Your task to perform on an android device: empty trash in the gmail app Image 0: 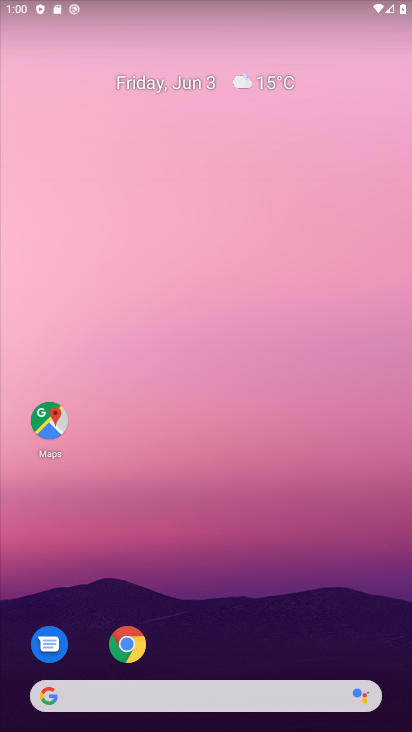
Step 0: drag from (203, 643) to (234, 249)
Your task to perform on an android device: empty trash in the gmail app Image 1: 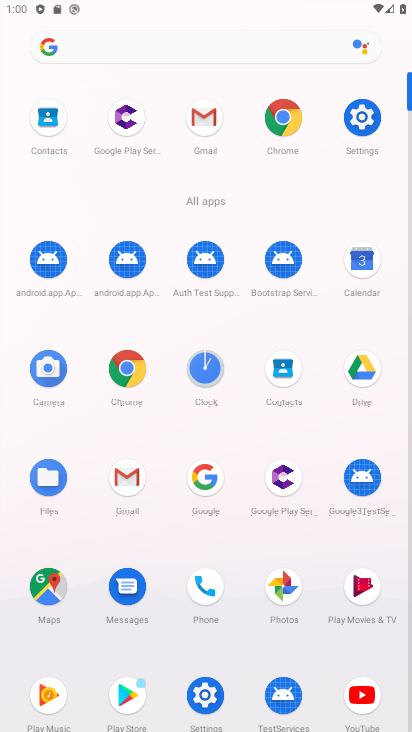
Step 1: click (140, 490)
Your task to perform on an android device: empty trash in the gmail app Image 2: 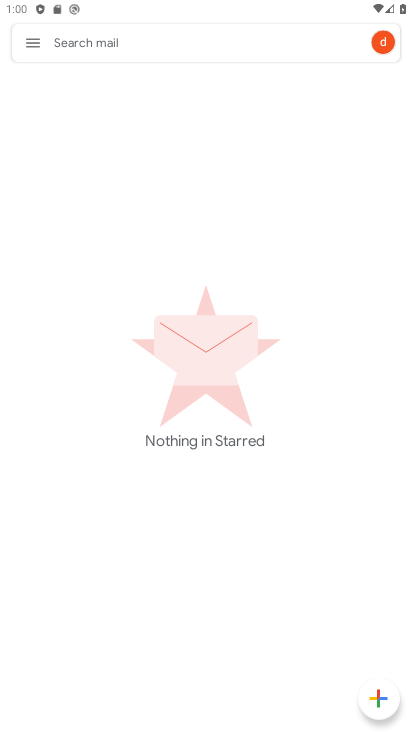
Step 2: click (39, 35)
Your task to perform on an android device: empty trash in the gmail app Image 3: 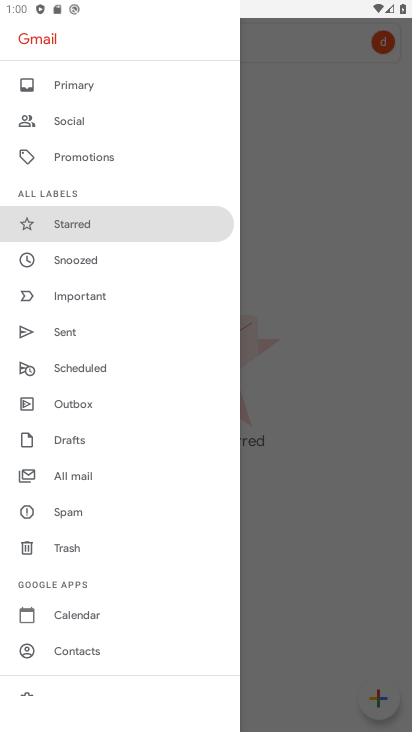
Step 3: click (44, 547)
Your task to perform on an android device: empty trash in the gmail app Image 4: 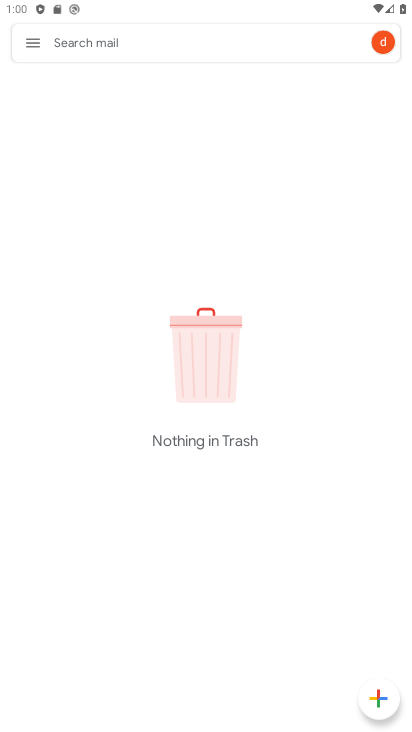
Step 4: task complete